Your task to perform on an android device: turn on javascript in the chrome app Image 0: 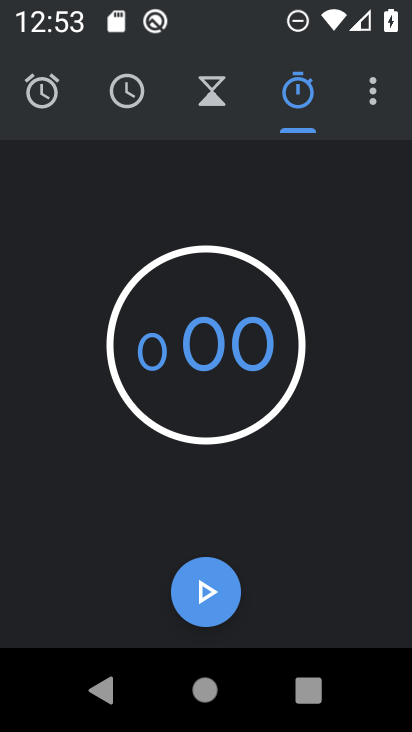
Step 0: press home button
Your task to perform on an android device: turn on javascript in the chrome app Image 1: 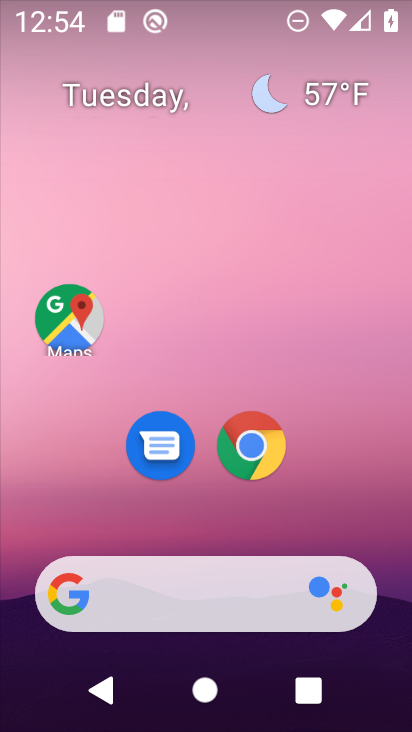
Step 1: drag from (380, 533) to (371, 155)
Your task to perform on an android device: turn on javascript in the chrome app Image 2: 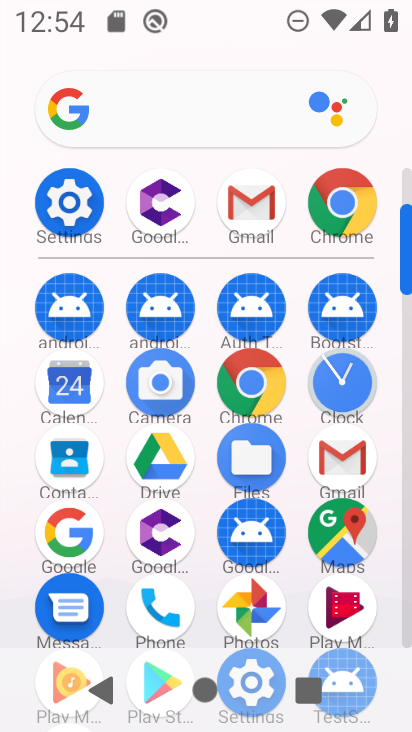
Step 2: click (255, 386)
Your task to perform on an android device: turn on javascript in the chrome app Image 3: 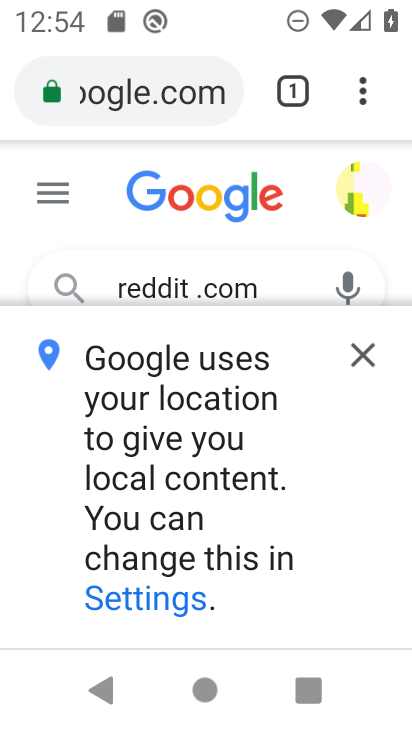
Step 3: click (364, 104)
Your task to perform on an android device: turn on javascript in the chrome app Image 4: 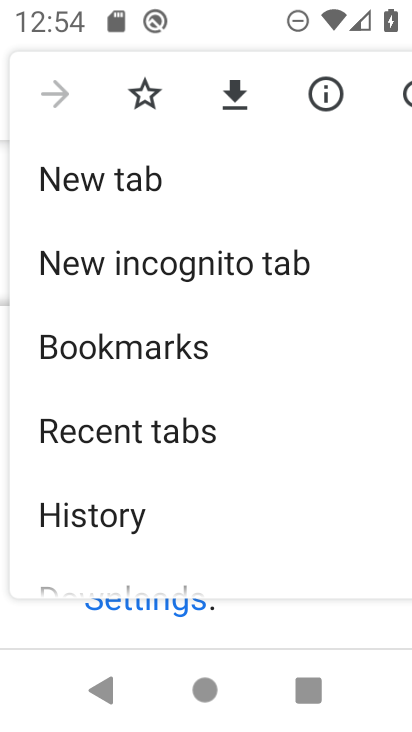
Step 4: drag from (330, 499) to (347, 327)
Your task to perform on an android device: turn on javascript in the chrome app Image 5: 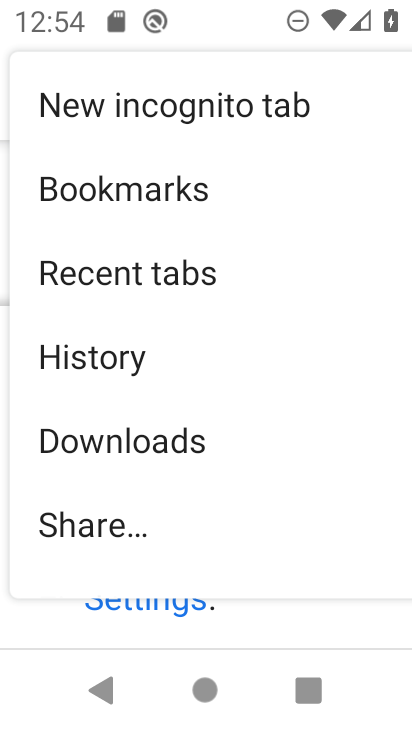
Step 5: drag from (339, 521) to (321, 327)
Your task to perform on an android device: turn on javascript in the chrome app Image 6: 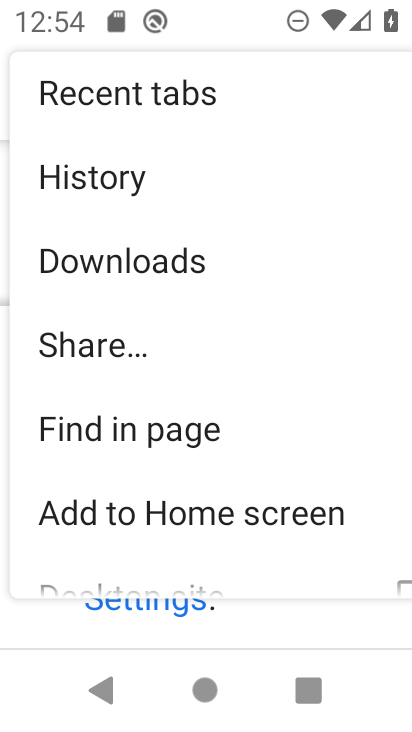
Step 6: drag from (385, 561) to (368, 342)
Your task to perform on an android device: turn on javascript in the chrome app Image 7: 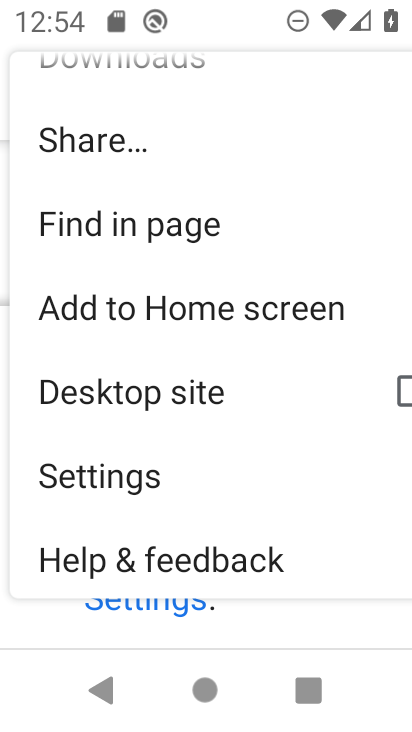
Step 7: click (148, 491)
Your task to perform on an android device: turn on javascript in the chrome app Image 8: 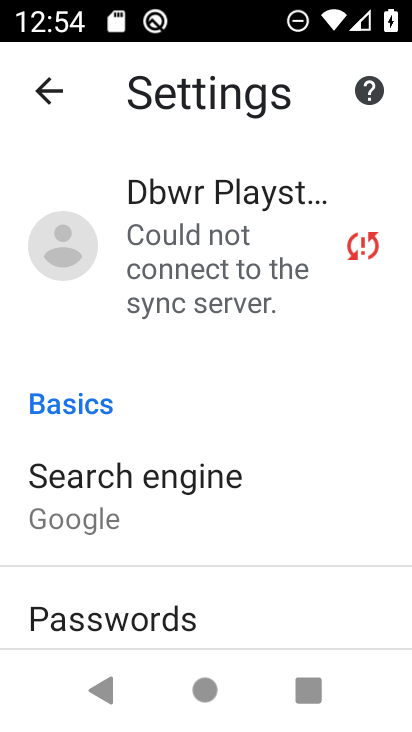
Step 8: drag from (300, 571) to (320, 426)
Your task to perform on an android device: turn on javascript in the chrome app Image 9: 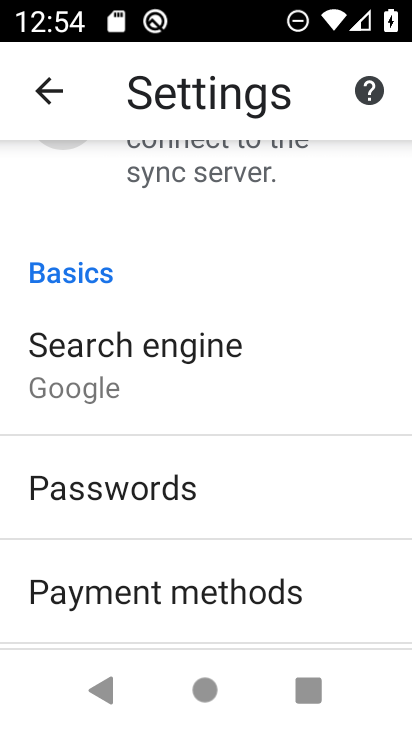
Step 9: drag from (334, 588) to (341, 433)
Your task to perform on an android device: turn on javascript in the chrome app Image 10: 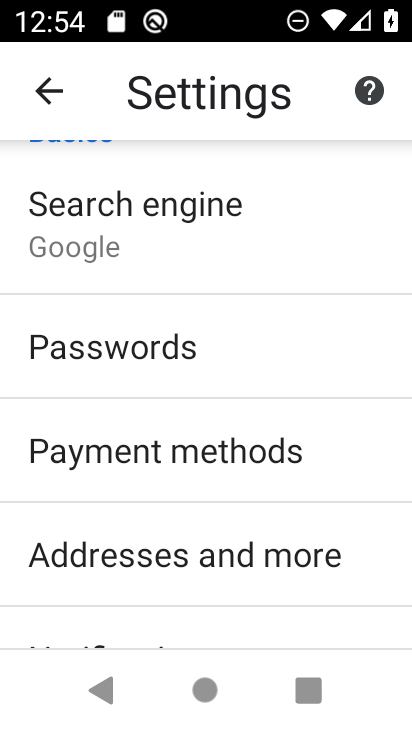
Step 10: drag from (362, 554) to (348, 394)
Your task to perform on an android device: turn on javascript in the chrome app Image 11: 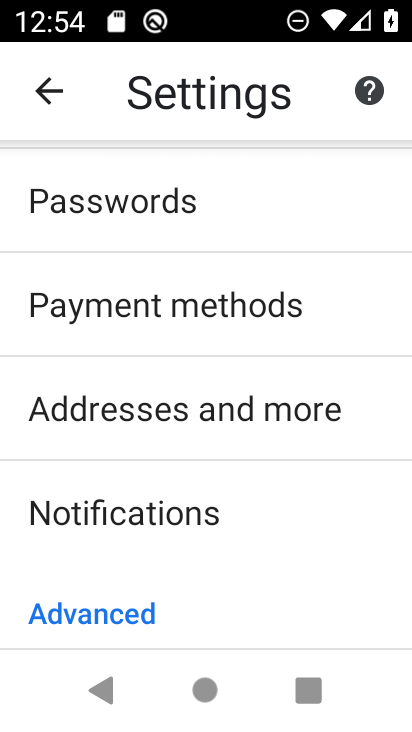
Step 11: drag from (357, 593) to (375, 401)
Your task to perform on an android device: turn on javascript in the chrome app Image 12: 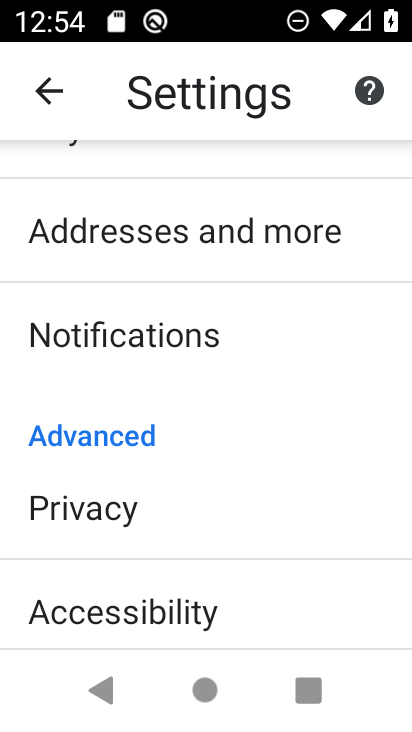
Step 12: drag from (348, 598) to (353, 443)
Your task to perform on an android device: turn on javascript in the chrome app Image 13: 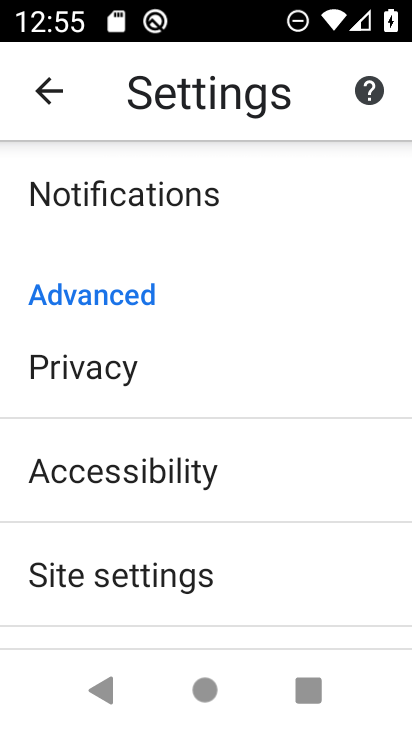
Step 13: drag from (347, 606) to (339, 465)
Your task to perform on an android device: turn on javascript in the chrome app Image 14: 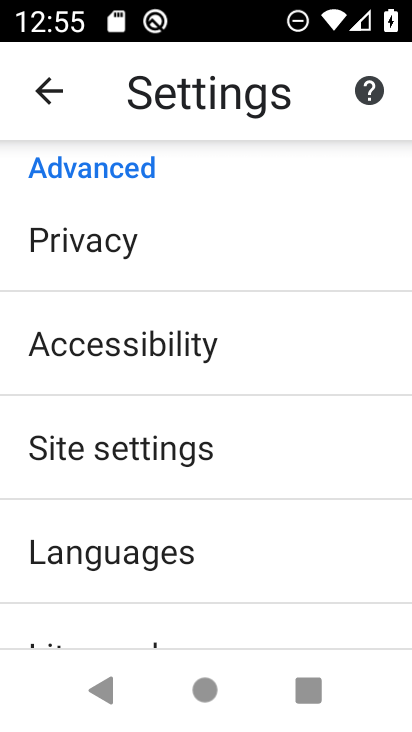
Step 14: drag from (335, 608) to (341, 428)
Your task to perform on an android device: turn on javascript in the chrome app Image 15: 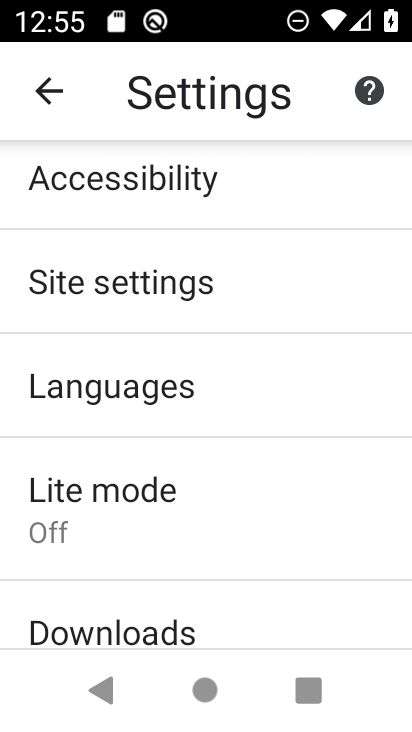
Step 15: drag from (308, 578) to (325, 413)
Your task to perform on an android device: turn on javascript in the chrome app Image 16: 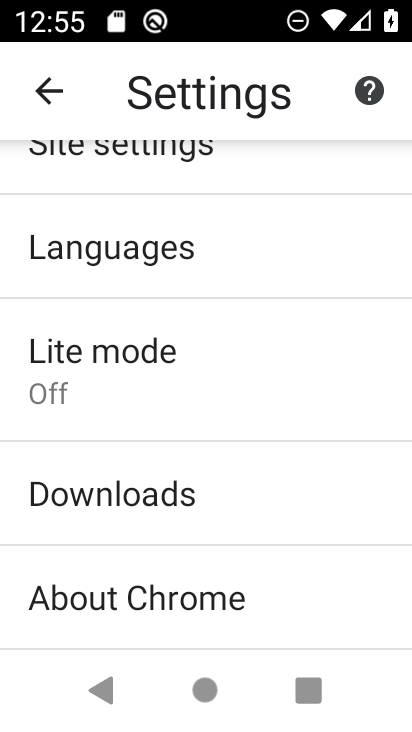
Step 16: drag from (323, 574) to (352, 390)
Your task to perform on an android device: turn on javascript in the chrome app Image 17: 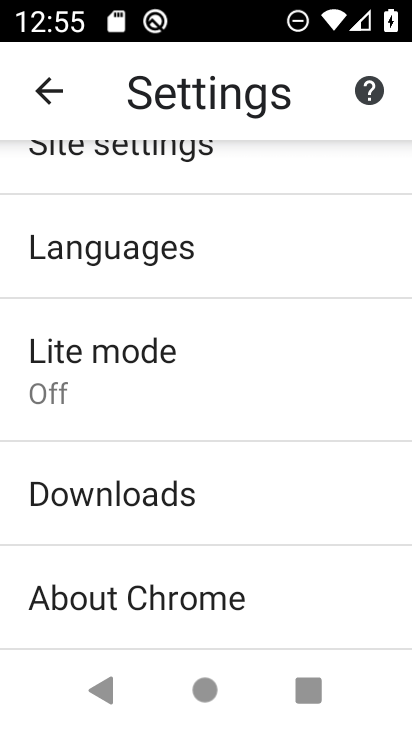
Step 17: drag from (347, 263) to (364, 417)
Your task to perform on an android device: turn on javascript in the chrome app Image 18: 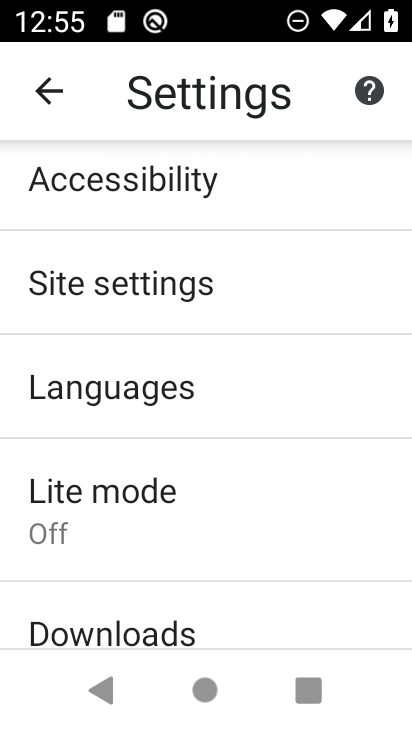
Step 18: drag from (326, 264) to (336, 391)
Your task to perform on an android device: turn on javascript in the chrome app Image 19: 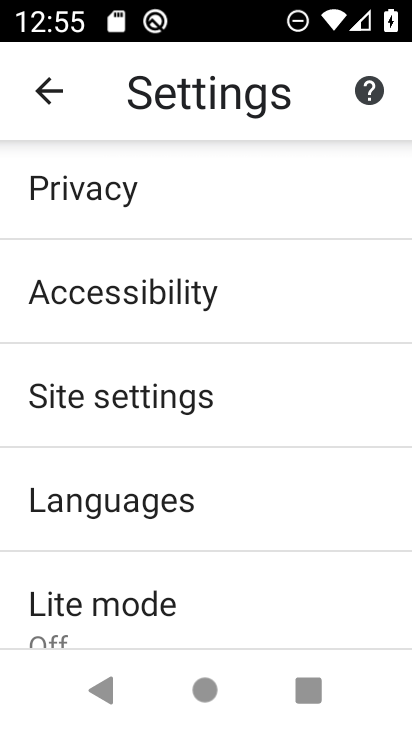
Step 19: drag from (329, 273) to (336, 363)
Your task to perform on an android device: turn on javascript in the chrome app Image 20: 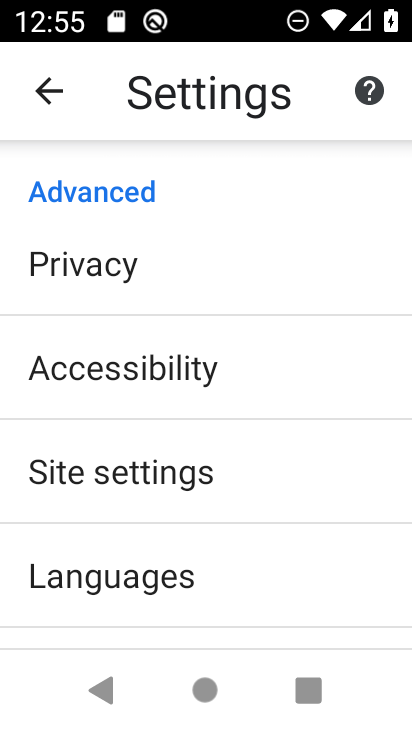
Step 20: click (303, 498)
Your task to perform on an android device: turn on javascript in the chrome app Image 21: 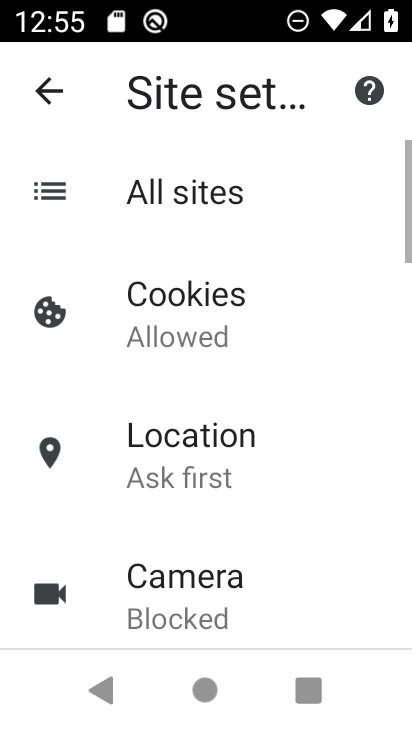
Step 21: drag from (299, 548) to (299, 434)
Your task to perform on an android device: turn on javascript in the chrome app Image 22: 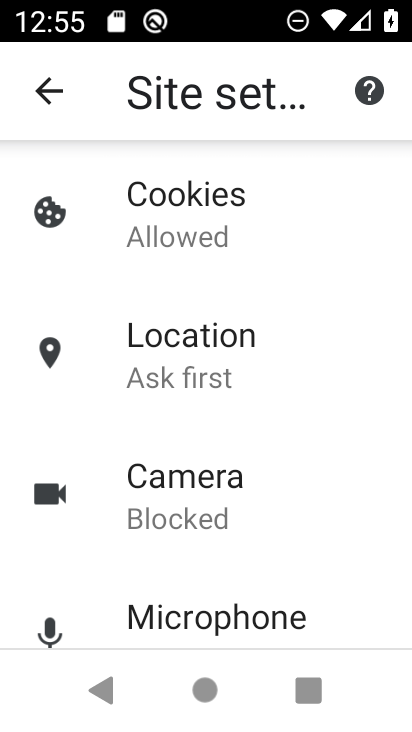
Step 22: drag from (347, 566) to (352, 397)
Your task to perform on an android device: turn on javascript in the chrome app Image 23: 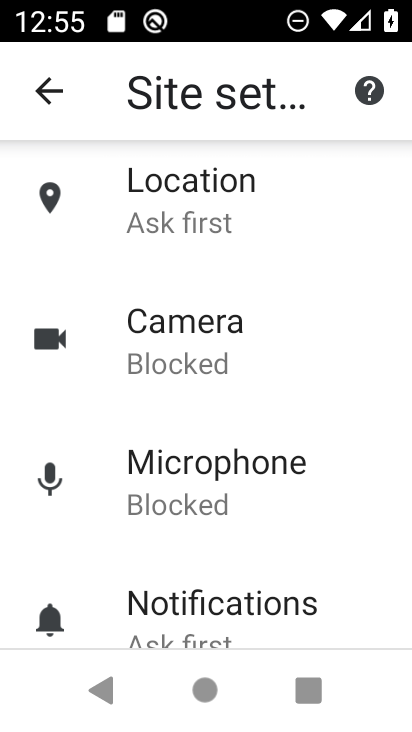
Step 23: drag from (353, 568) to (332, 403)
Your task to perform on an android device: turn on javascript in the chrome app Image 24: 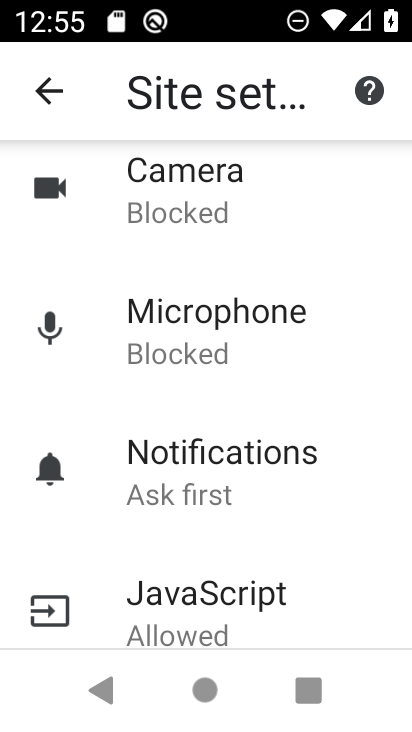
Step 24: drag from (348, 565) to (343, 416)
Your task to perform on an android device: turn on javascript in the chrome app Image 25: 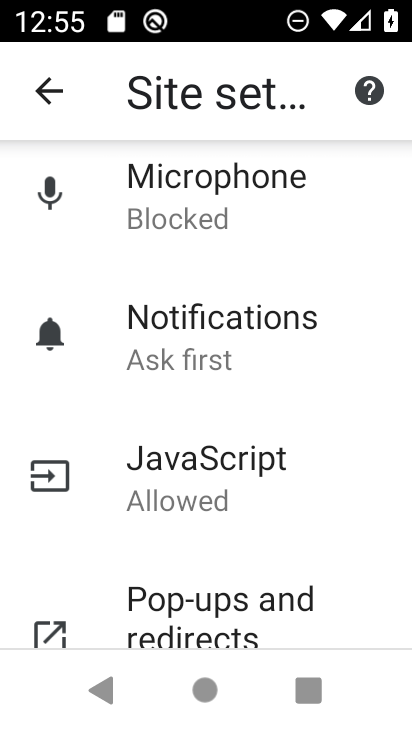
Step 25: click (256, 467)
Your task to perform on an android device: turn on javascript in the chrome app Image 26: 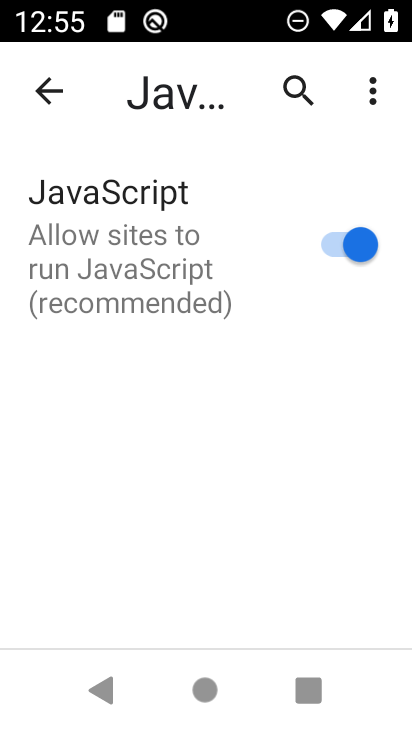
Step 26: task complete